Your task to perform on an android device: What's on my calendar today? Image 0: 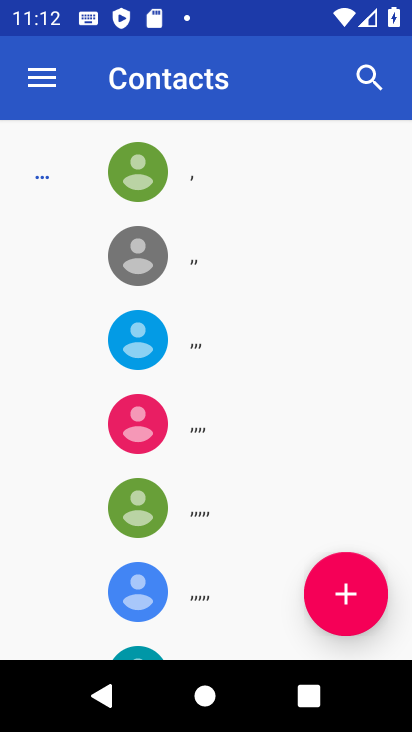
Step 0: press back button
Your task to perform on an android device: What's on my calendar today? Image 1: 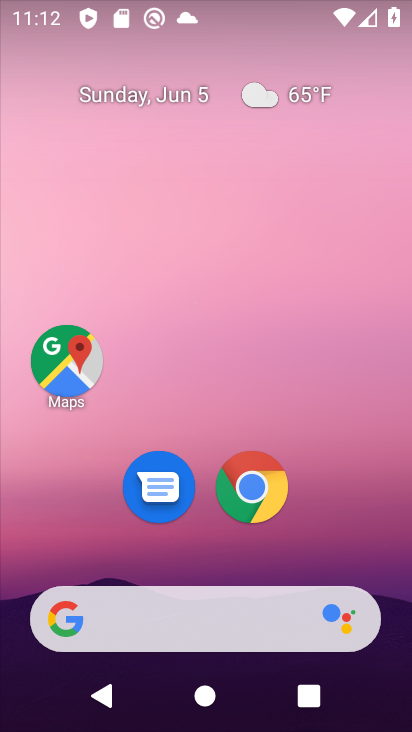
Step 1: drag from (354, 545) to (254, 32)
Your task to perform on an android device: What's on my calendar today? Image 2: 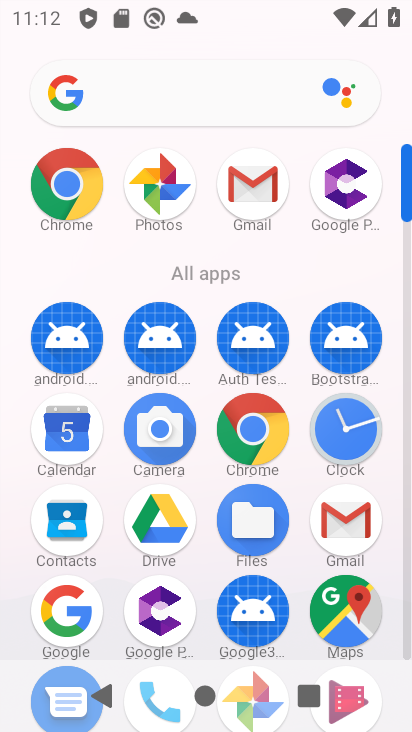
Step 2: click (65, 431)
Your task to perform on an android device: What's on my calendar today? Image 3: 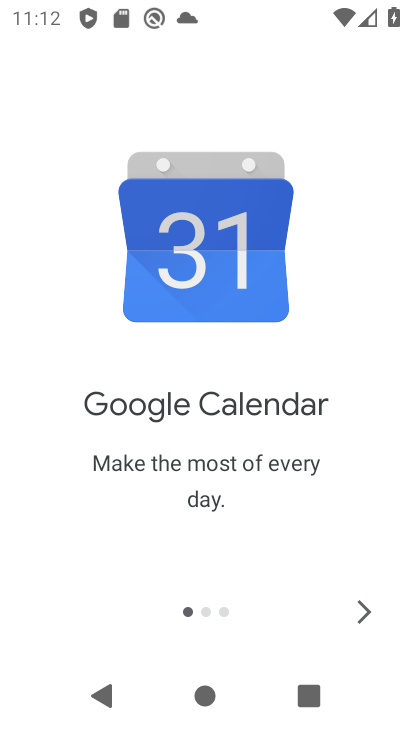
Step 3: click (368, 607)
Your task to perform on an android device: What's on my calendar today? Image 4: 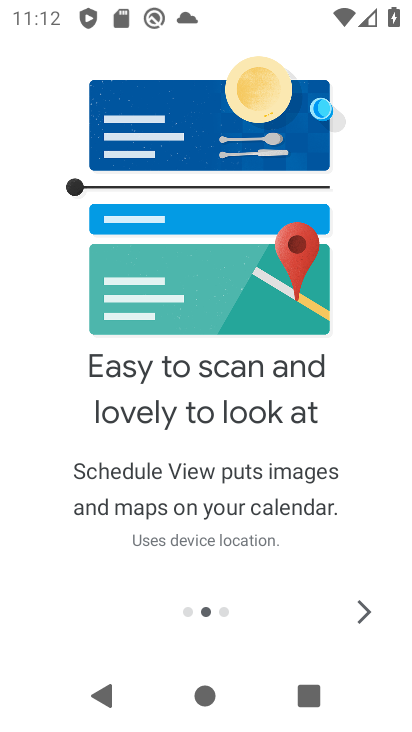
Step 4: click (368, 607)
Your task to perform on an android device: What's on my calendar today? Image 5: 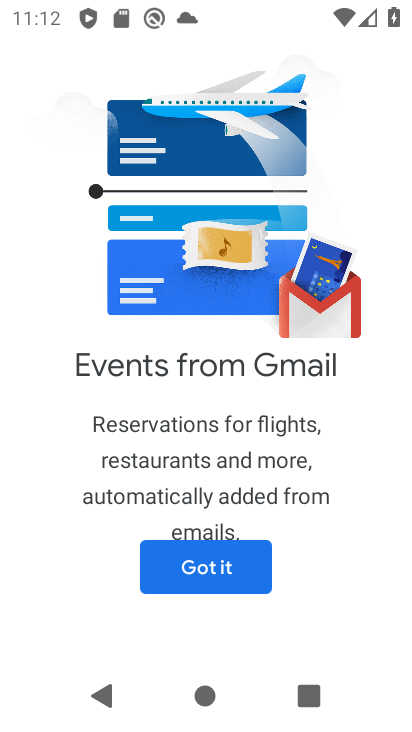
Step 5: click (197, 567)
Your task to perform on an android device: What's on my calendar today? Image 6: 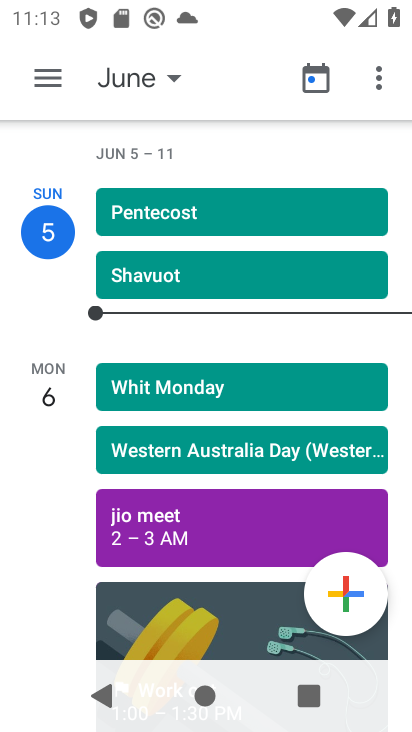
Step 6: click (291, 214)
Your task to perform on an android device: What's on my calendar today? Image 7: 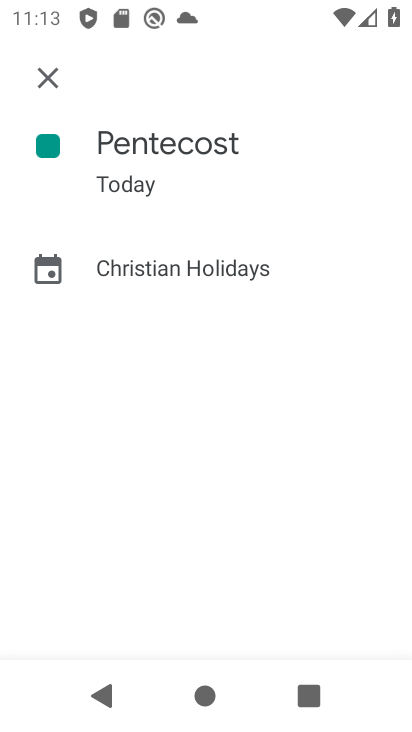
Step 7: task complete